Your task to perform on an android device: Open calendar and show me the fourth week of next month Image 0: 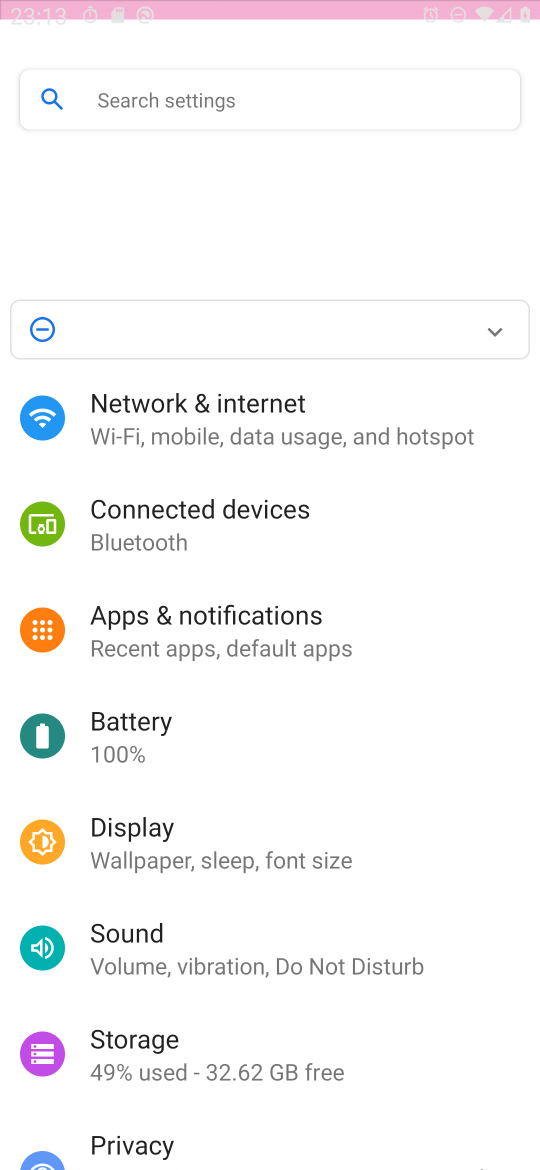
Step 0: press back button
Your task to perform on an android device: Open calendar and show me the fourth week of next month Image 1: 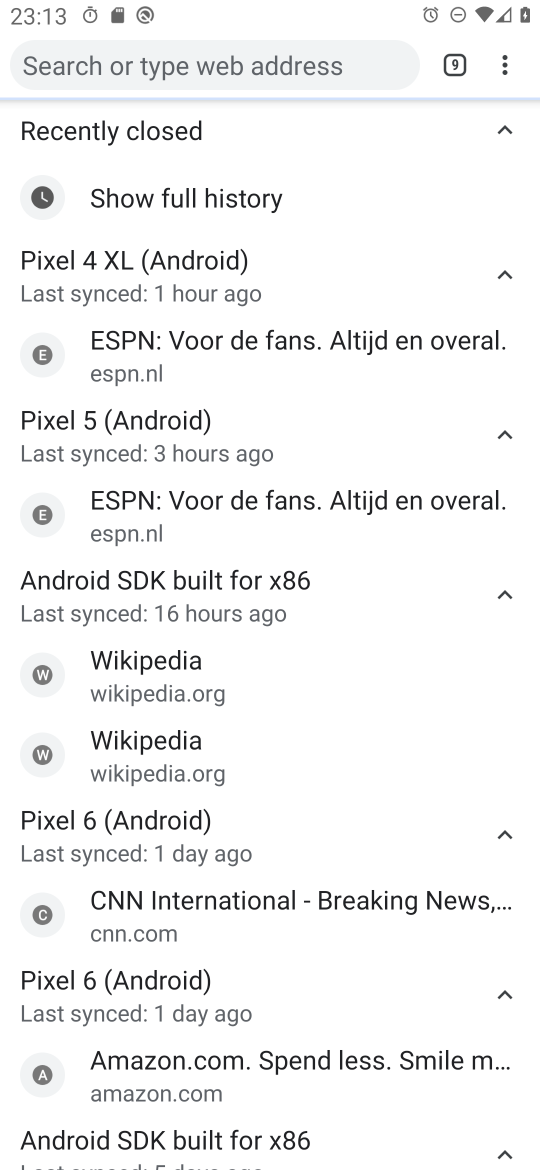
Step 1: press back button
Your task to perform on an android device: Open calendar and show me the fourth week of next month Image 2: 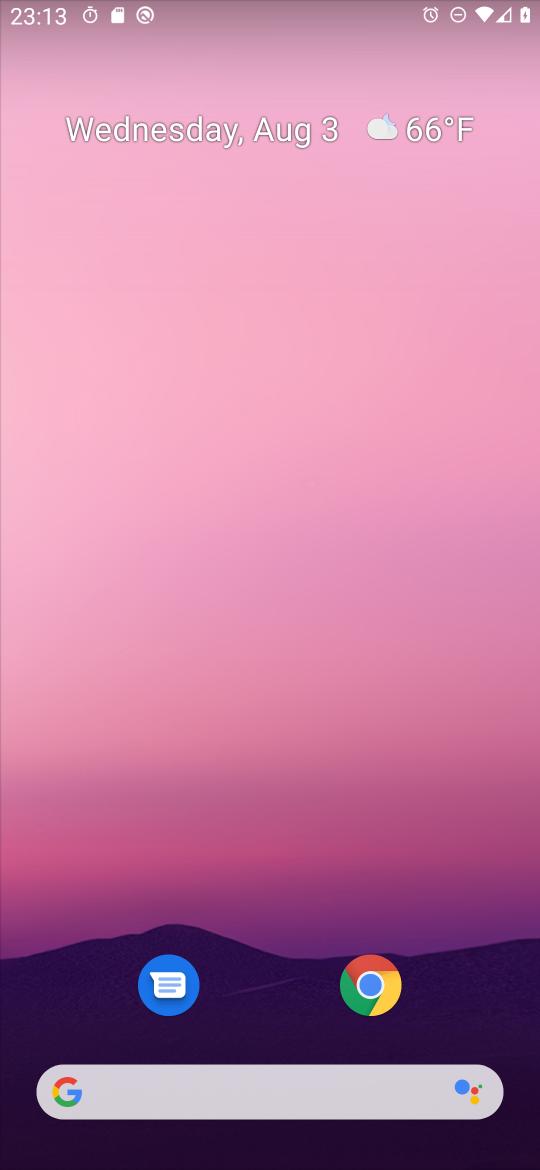
Step 2: drag from (270, 785) to (270, 344)
Your task to perform on an android device: Open calendar and show me the fourth week of next month Image 3: 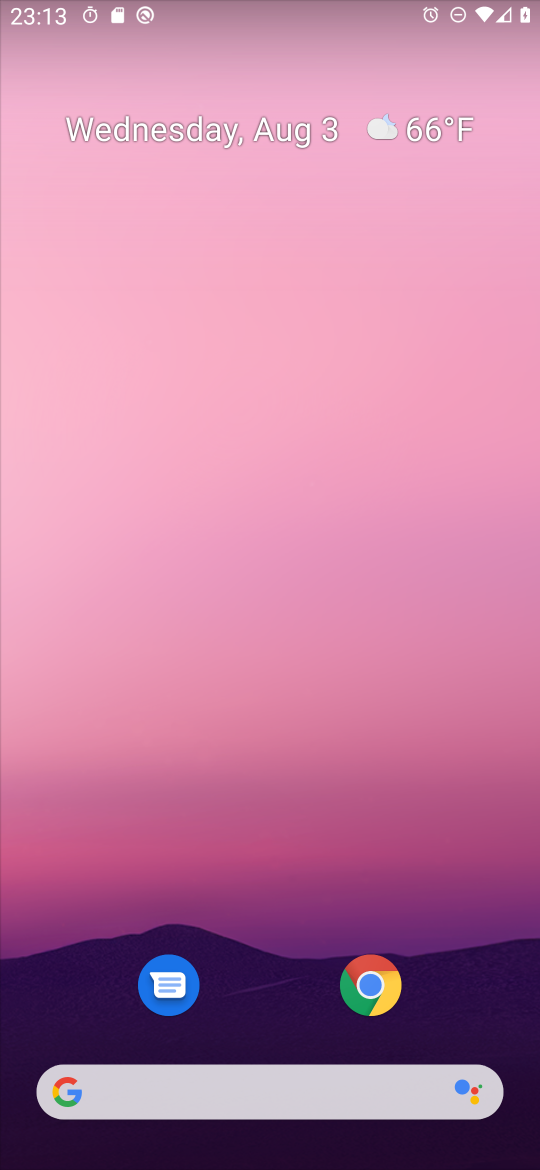
Step 3: drag from (260, 933) to (264, 322)
Your task to perform on an android device: Open calendar and show me the fourth week of next month Image 4: 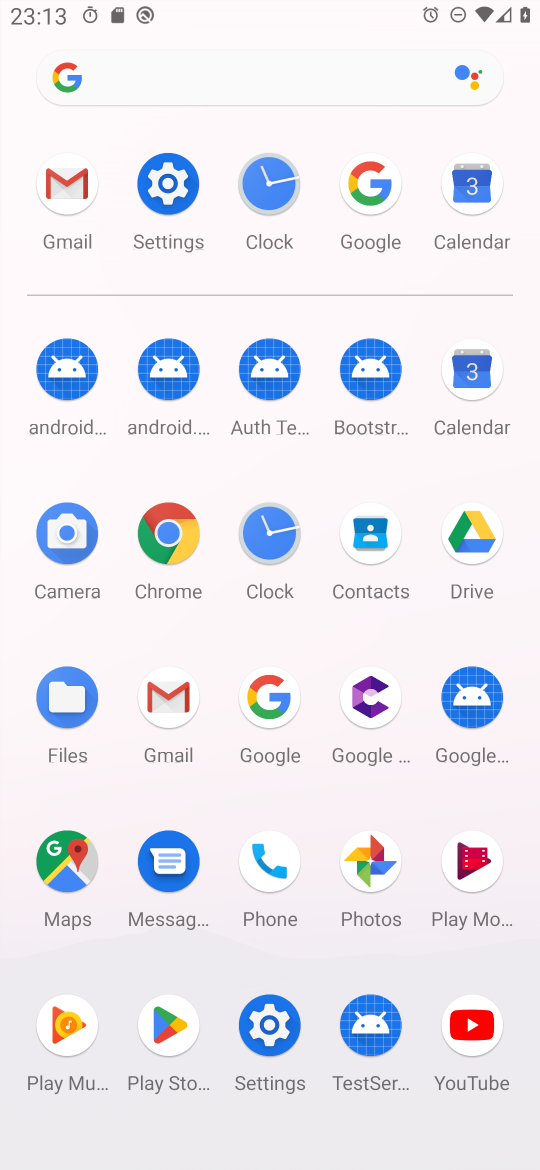
Step 4: click (461, 184)
Your task to perform on an android device: Open calendar and show me the fourth week of next month Image 5: 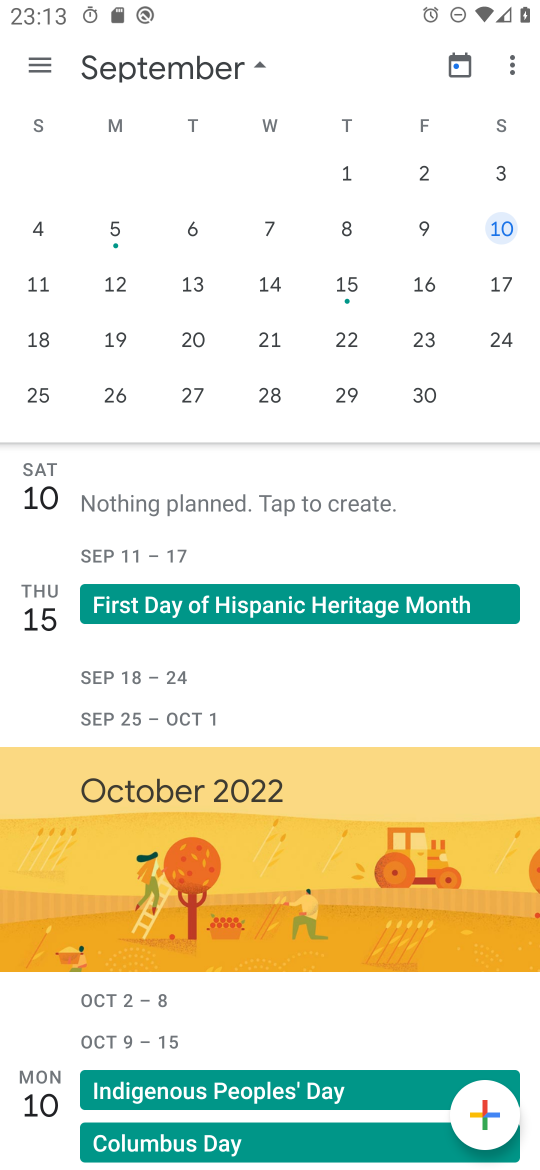
Step 5: click (24, 352)
Your task to perform on an android device: Open calendar and show me the fourth week of next month Image 6: 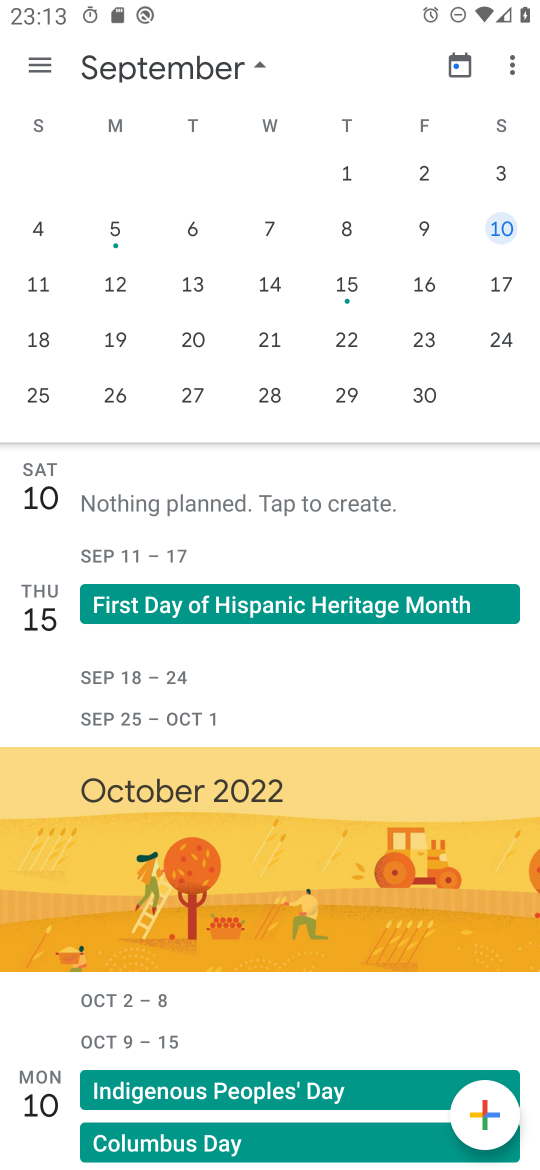
Step 6: click (31, 329)
Your task to perform on an android device: Open calendar and show me the fourth week of next month Image 7: 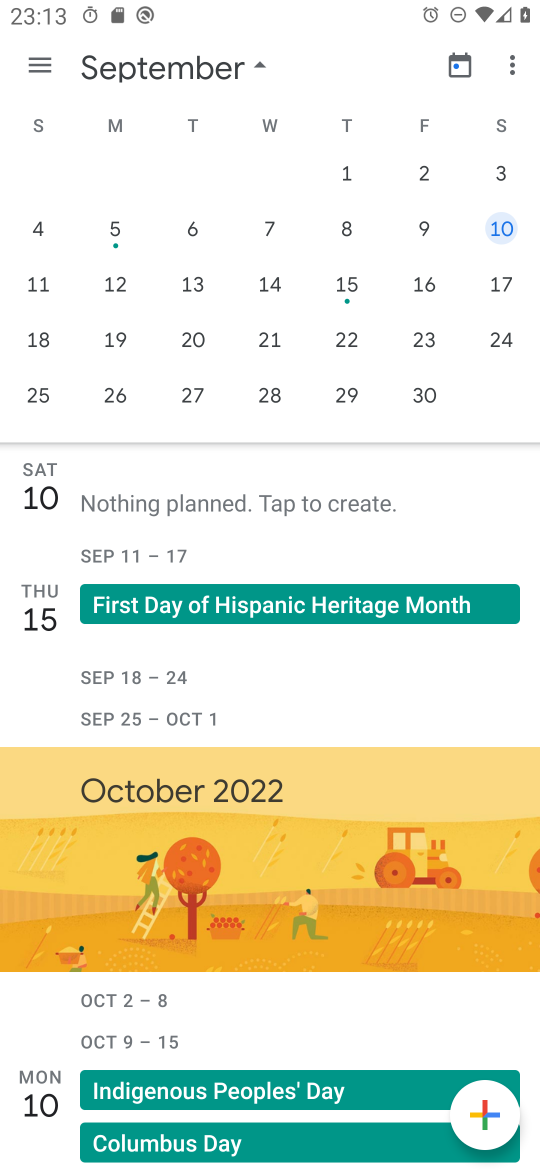
Step 7: click (96, 338)
Your task to perform on an android device: Open calendar and show me the fourth week of next month Image 8: 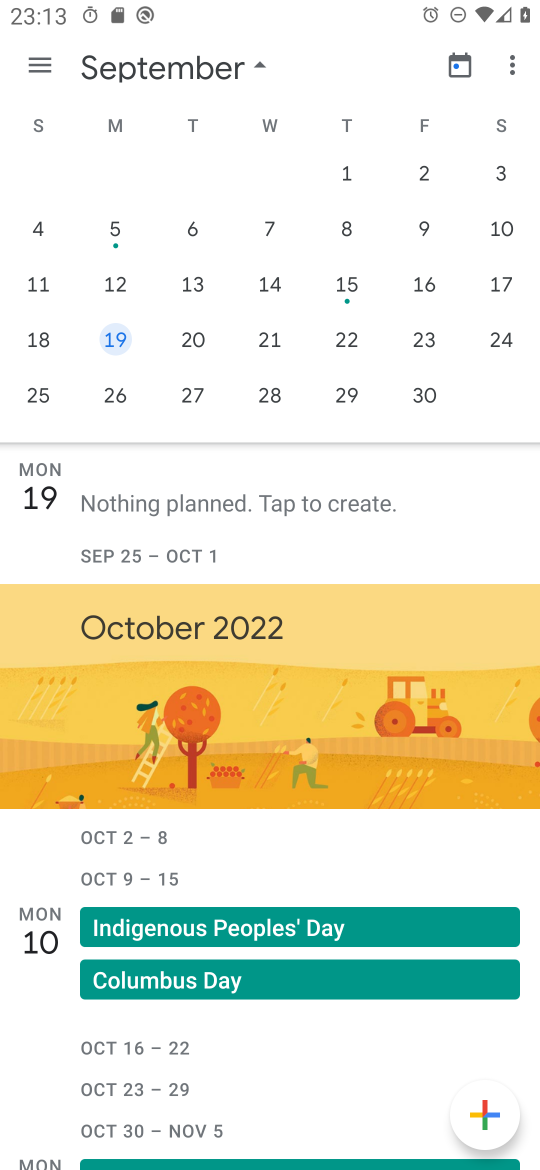
Step 8: click (58, 344)
Your task to perform on an android device: Open calendar and show me the fourth week of next month Image 9: 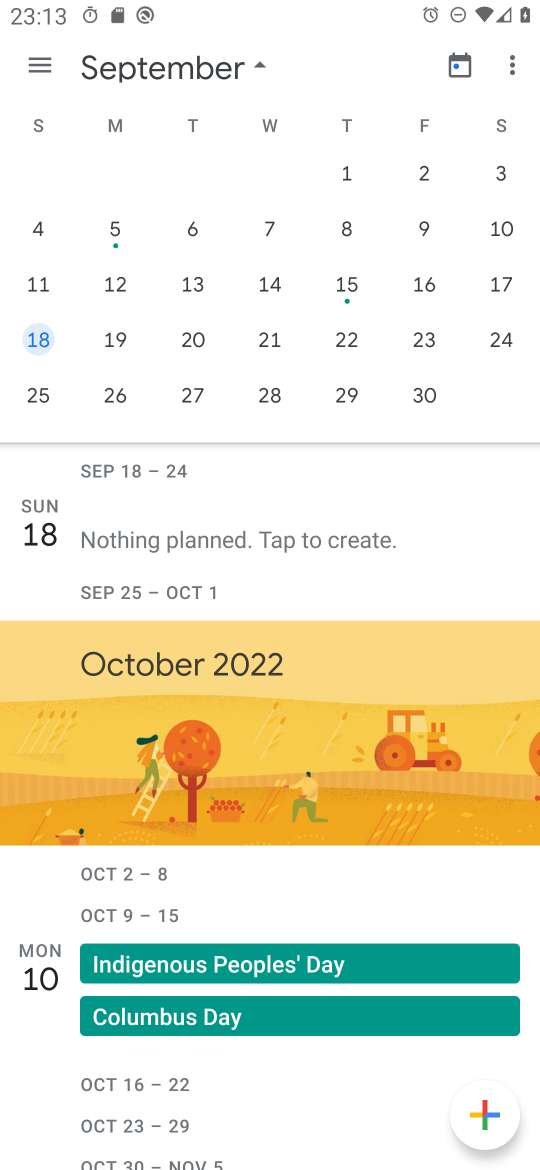
Step 9: task complete